Your task to perform on an android device: open app "Google Calendar" Image 0: 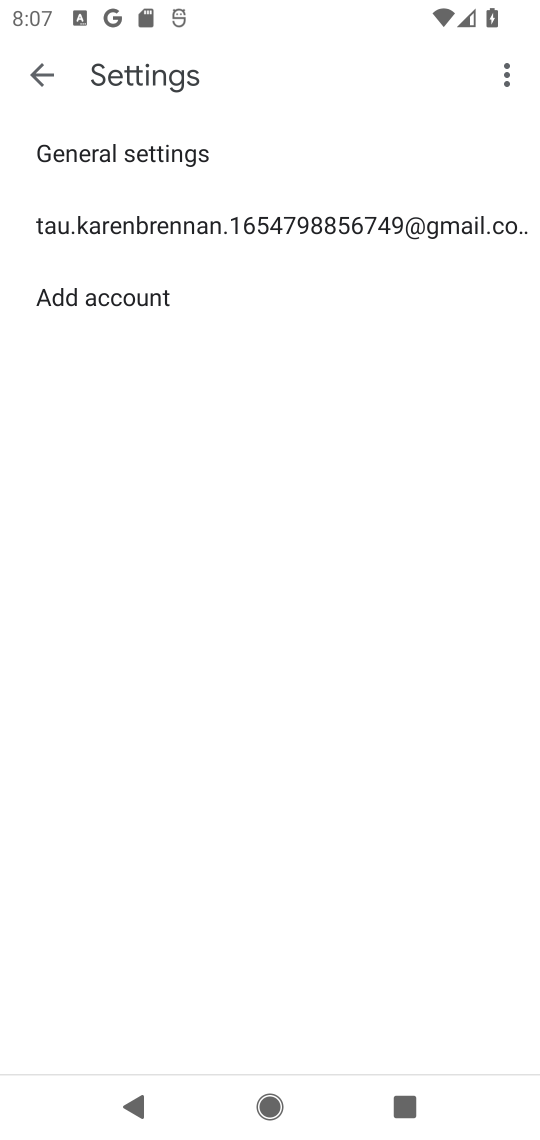
Step 0: press home button
Your task to perform on an android device: open app "Google Calendar" Image 1: 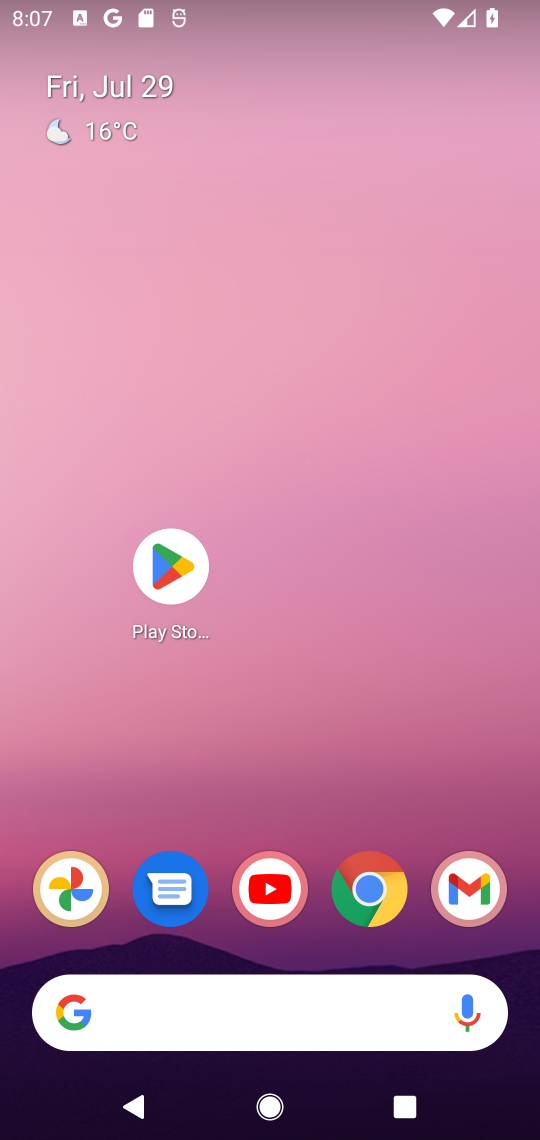
Step 1: drag from (275, 872) to (324, 280)
Your task to perform on an android device: open app "Google Calendar" Image 2: 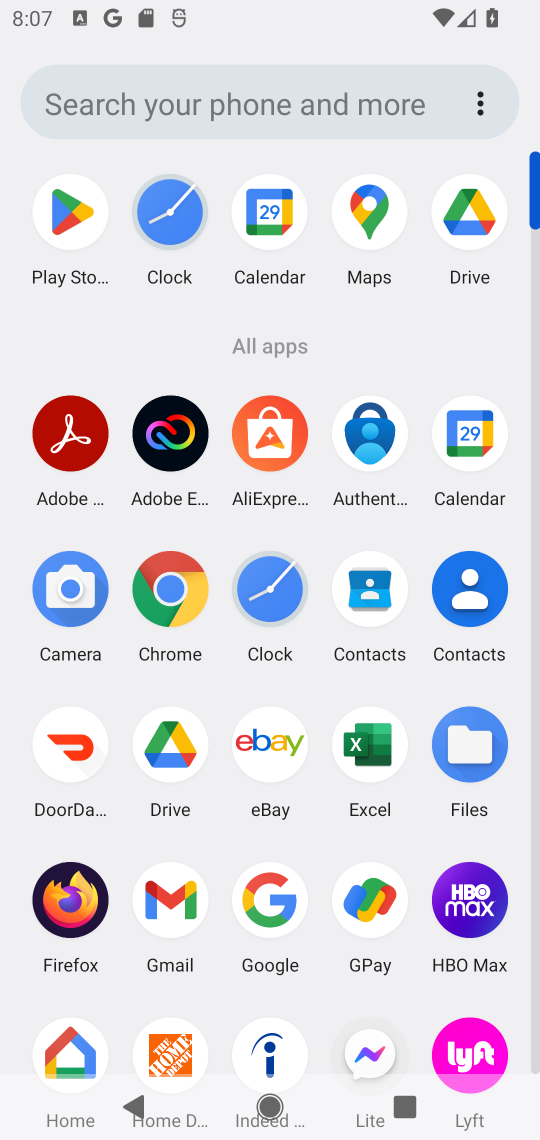
Step 2: click (457, 440)
Your task to perform on an android device: open app "Google Calendar" Image 3: 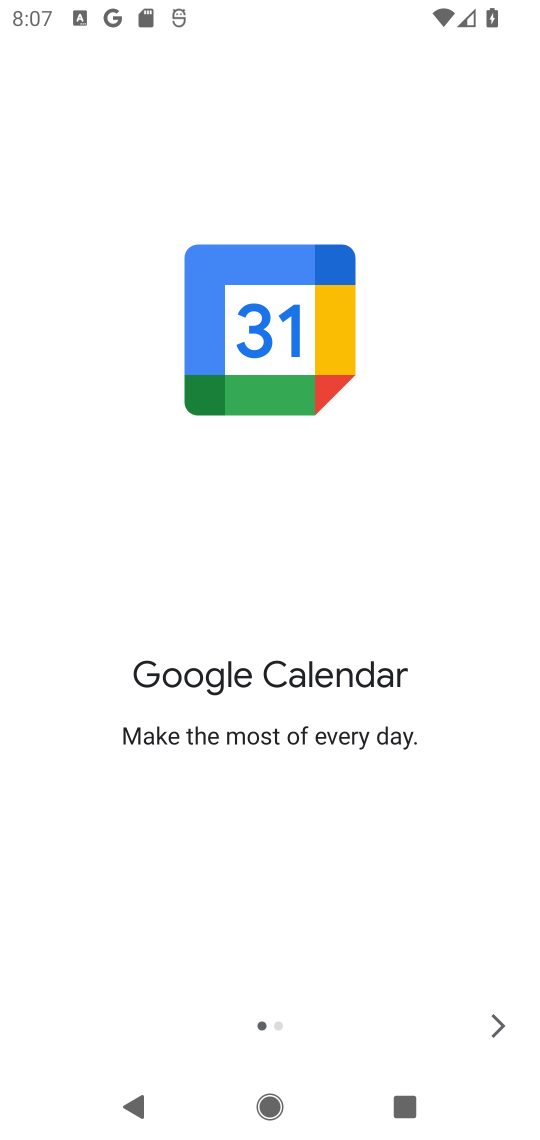
Step 3: click (497, 1018)
Your task to perform on an android device: open app "Google Calendar" Image 4: 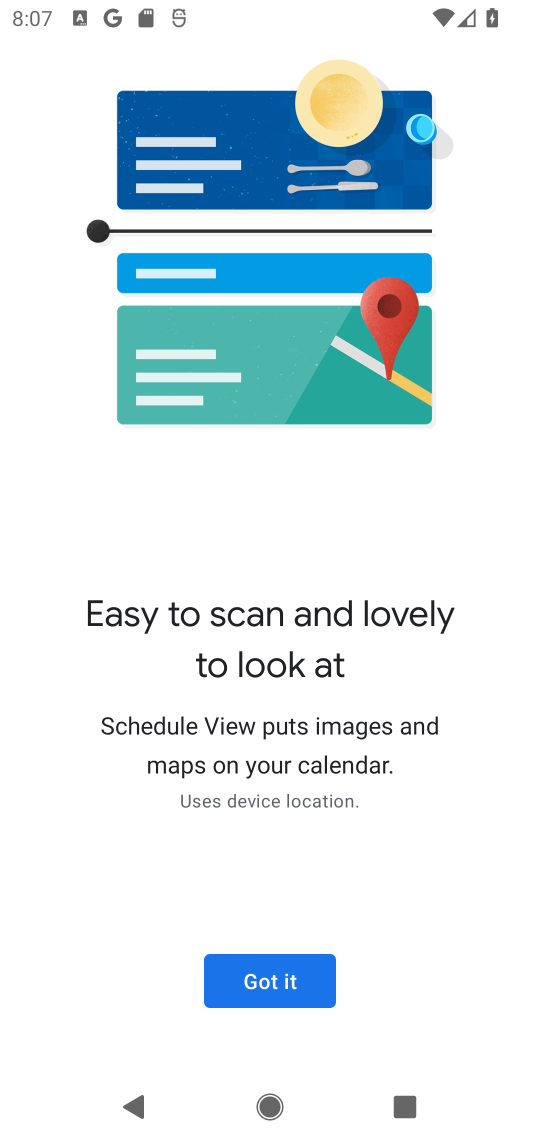
Step 4: click (305, 981)
Your task to perform on an android device: open app "Google Calendar" Image 5: 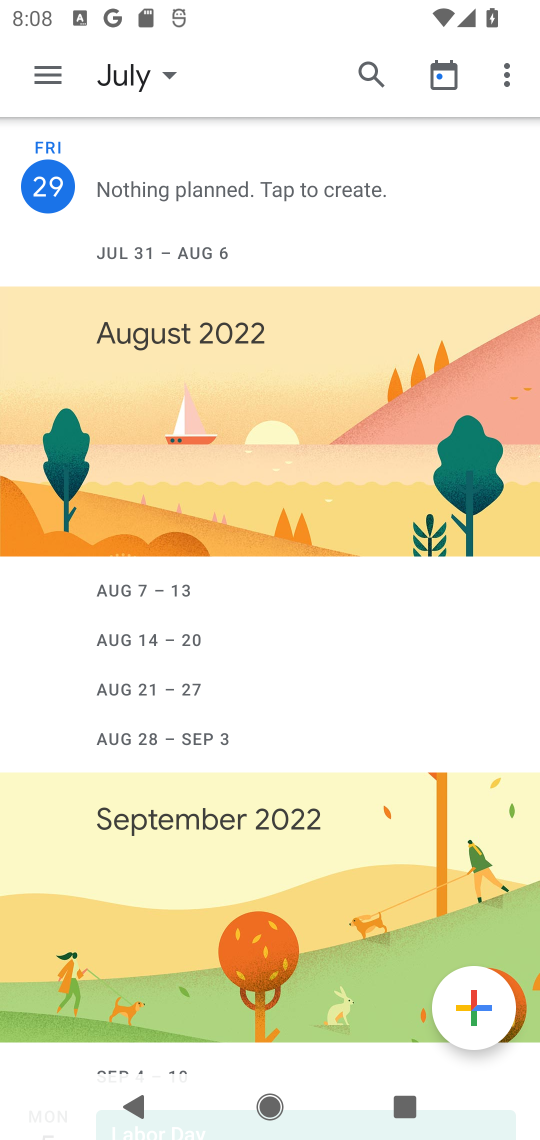
Step 5: task complete